Your task to perform on an android device: turn on airplane mode Image 0: 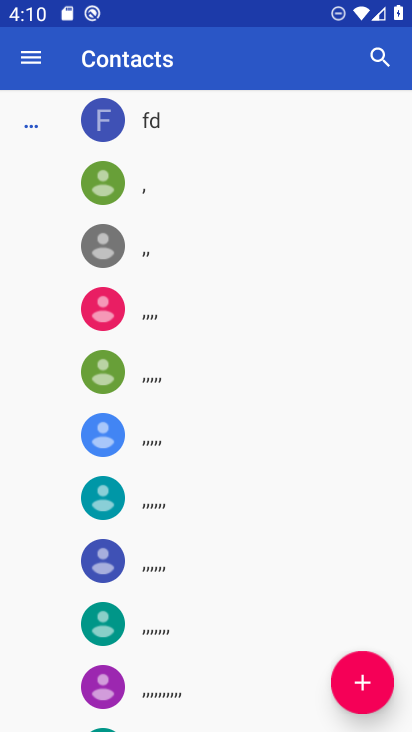
Step 0: press back button
Your task to perform on an android device: turn on airplane mode Image 1: 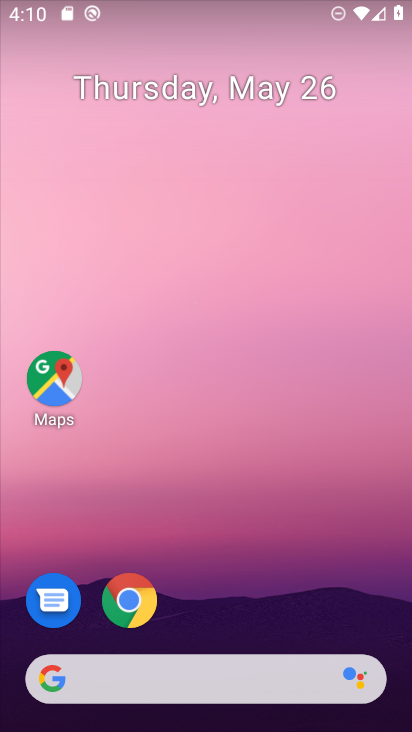
Step 1: drag from (281, 550) to (227, 7)
Your task to perform on an android device: turn on airplane mode Image 2: 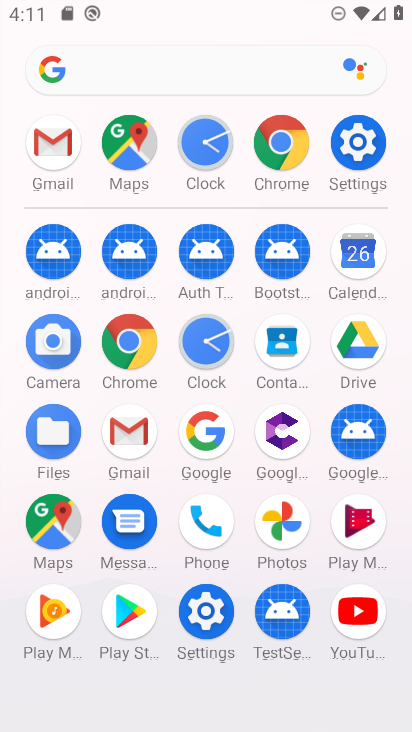
Step 2: click (206, 607)
Your task to perform on an android device: turn on airplane mode Image 3: 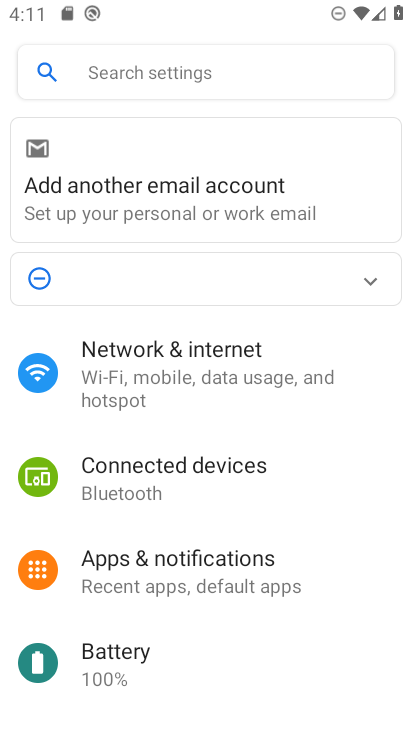
Step 3: click (174, 374)
Your task to perform on an android device: turn on airplane mode Image 4: 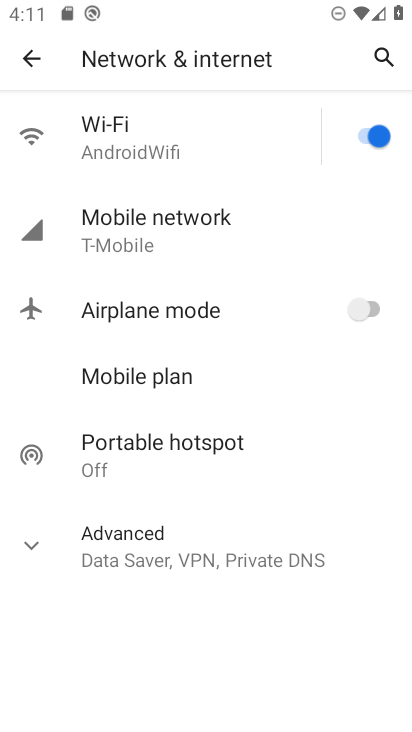
Step 4: click (46, 556)
Your task to perform on an android device: turn on airplane mode Image 5: 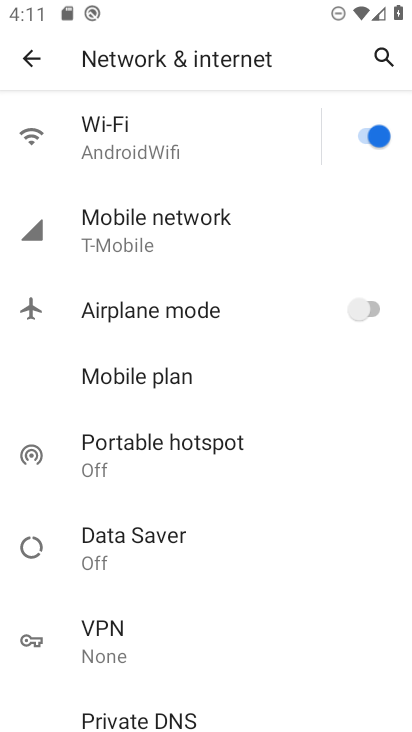
Step 5: click (376, 314)
Your task to perform on an android device: turn on airplane mode Image 6: 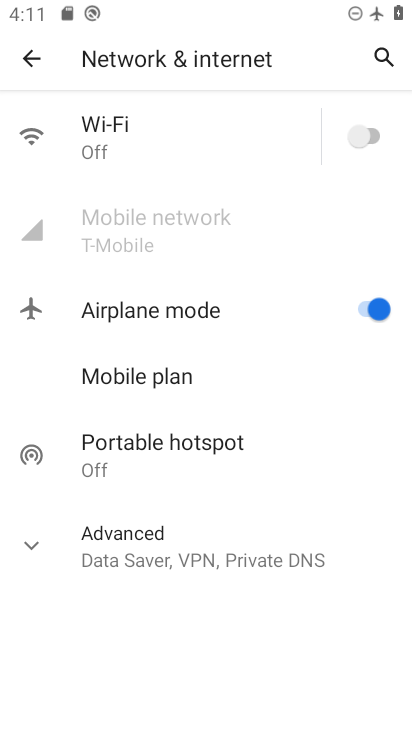
Step 6: task complete